Your task to perform on an android device: open app "Etsy: Buy & Sell Unique Items" (install if not already installed) and enter user name: "camp@inbox.com" and password: "unrelated" Image 0: 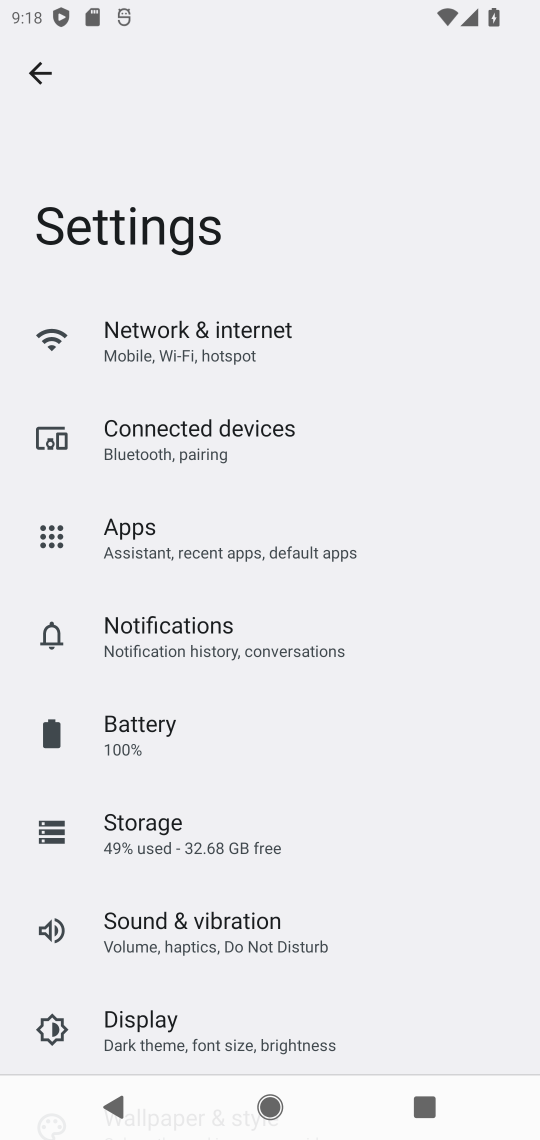
Step 0: press home button
Your task to perform on an android device: open app "Etsy: Buy & Sell Unique Items" (install if not already installed) and enter user name: "camp@inbox.com" and password: "unrelated" Image 1: 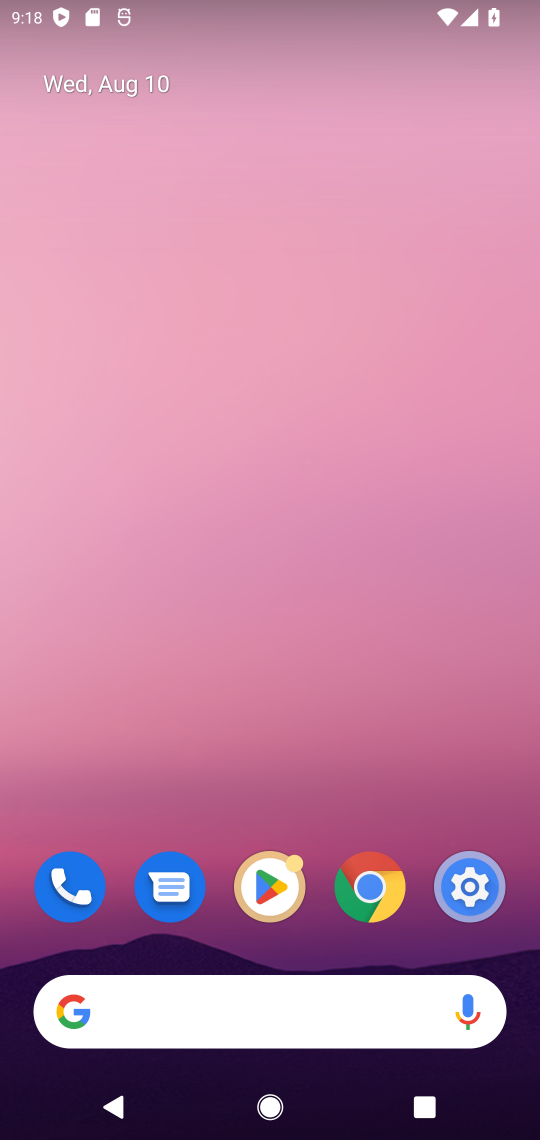
Step 1: click (263, 905)
Your task to perform on an android device: open app "Etsy: Buy & Sell Unique Items" (install if not already installed) and enter user name: "camp@inbox.com" and password: "unrelated" Image 2: 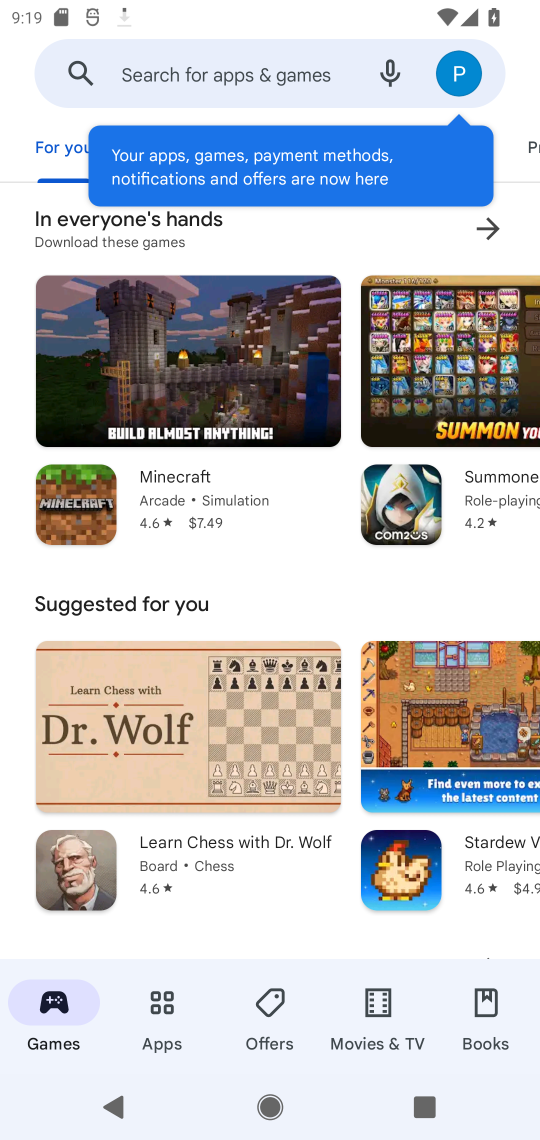
Step 2: type "Etsy: Buy & Sell Unique Items"
Your task to perform on an android device: open app "Etsy: Buy & Sell Unique Items" (install if not already installed) and enter user name: "camp@inbox.com" and password: "unrelated" Image 3: 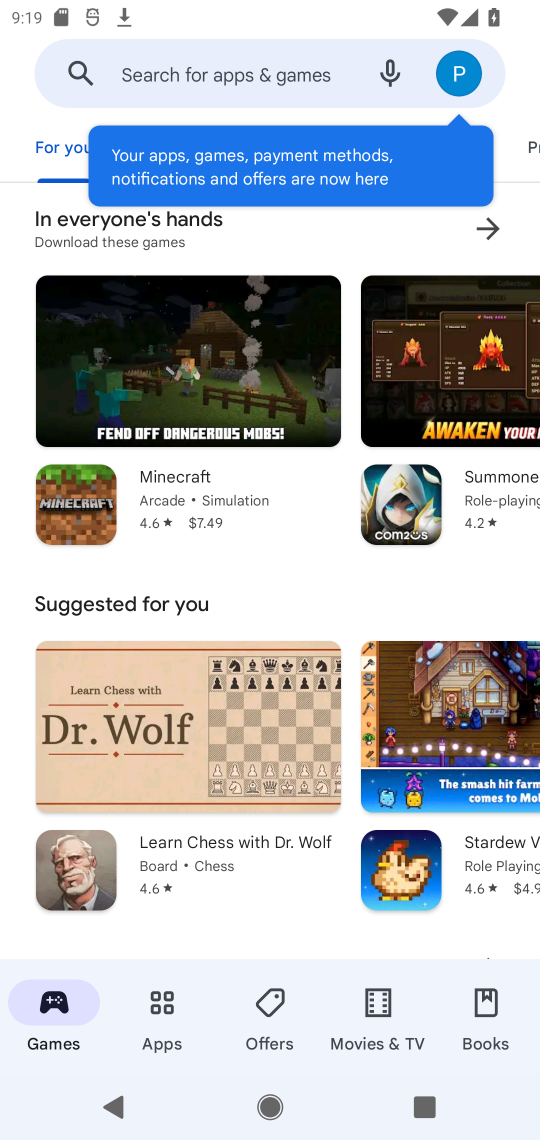
Step 3: click (174, 69)
Your task to perform on an android device: open app "Etsy: Buy & Sell Unique Items" (install if not already installed) and enter user name: "camp@inbox.com" and password: "unrelated" Image 4: 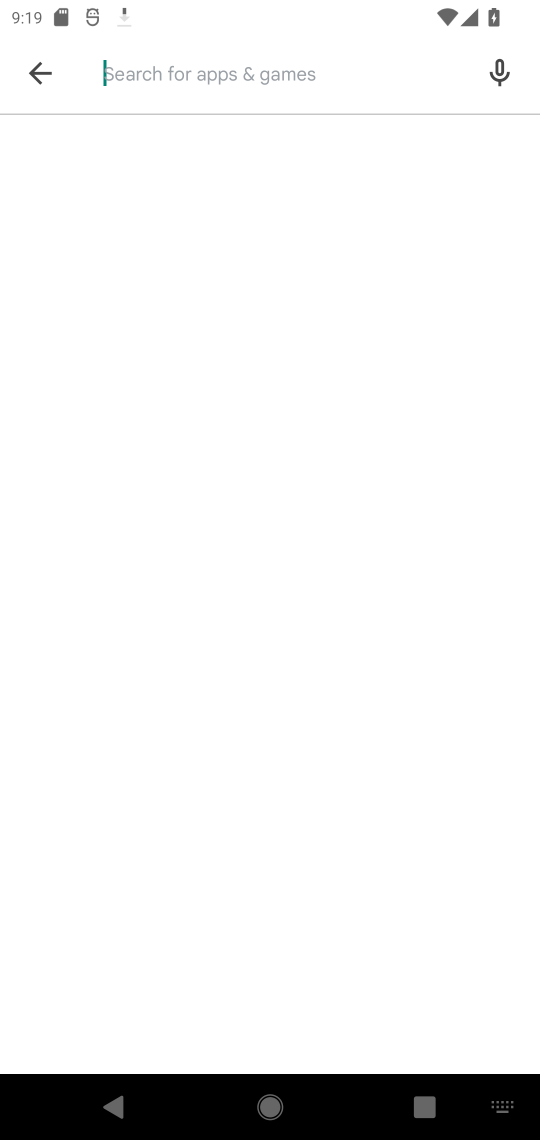
Step 4: type "Etsy: Buy & Sell Unique Items"
Your task to perform on an android device: open app "Etsy: Buy & Sell Unique Items" (install if not already installed) and enter user name: "camp@inbox.com" and password: "unrelated" Image 5: 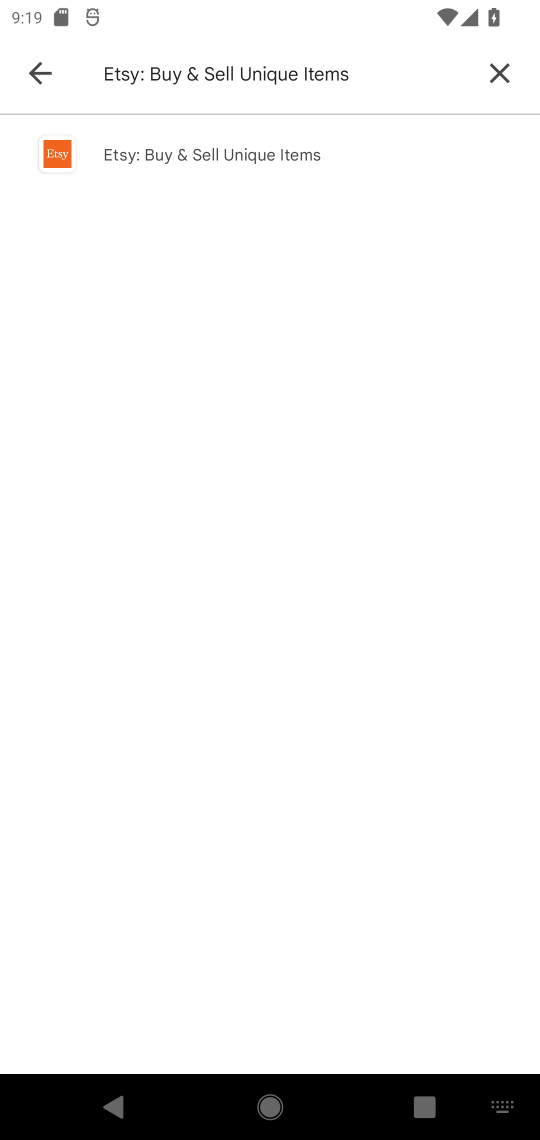
Step 5: click (266, 163)
Your task to perform on an android device: open app "Etsy: Buy & Sell Unique Items" (install if not already installed) and enter user name: "camp@inbox.com" and password: "unrelated" Image 6: 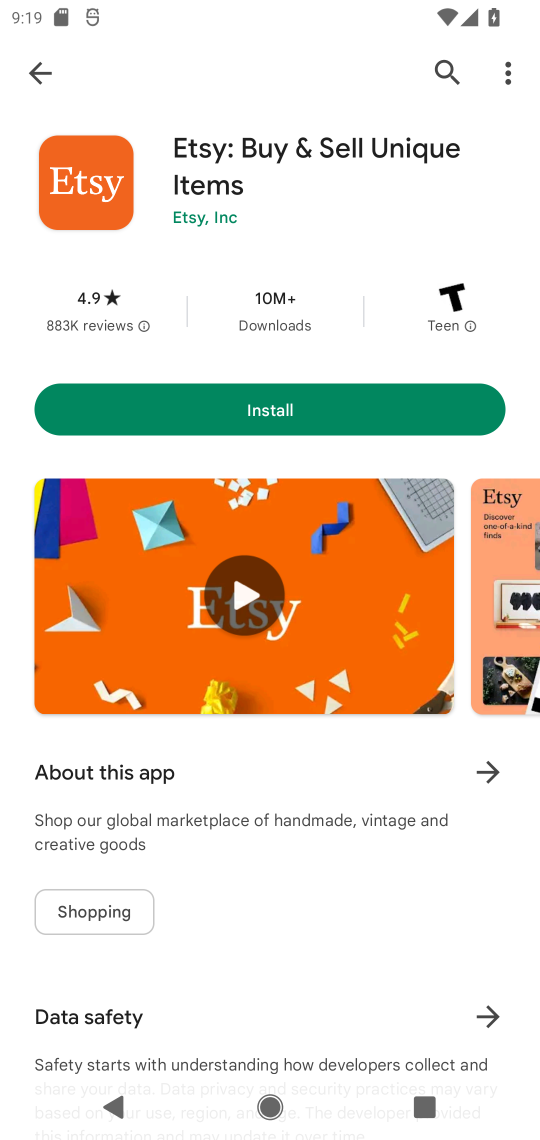
Step 6: click (318, 419)
Your task to perform on an android device: open app "Etsy: Buy & Sell Unique Items" (install if not already installed) and enter user name: "camp@inbox.com" and password: "unrelated" Image 7: 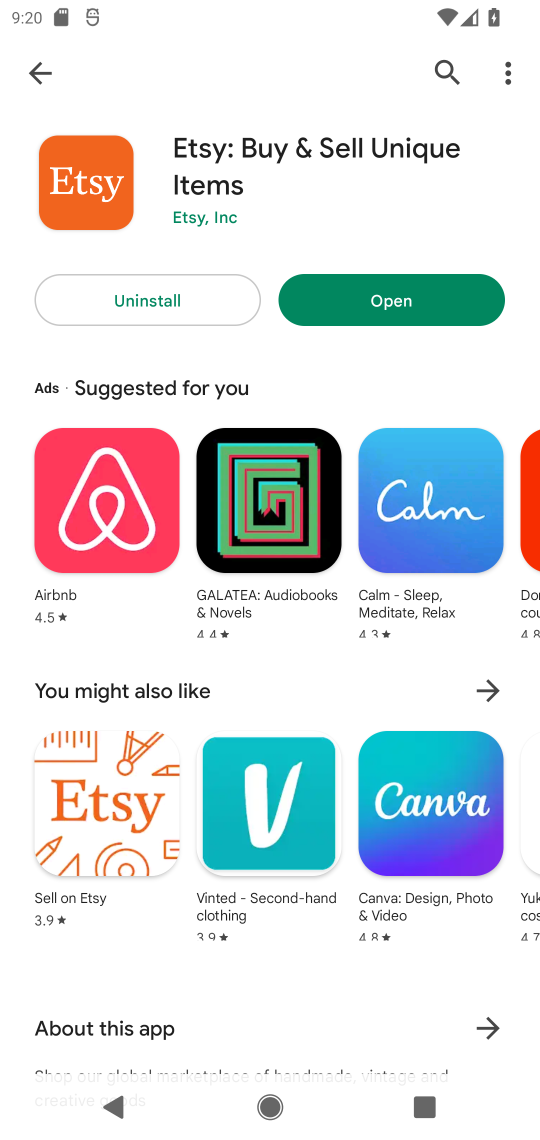
Step 7: click (351, 323)
Your task to perform on an android device: open app "Etsy: Buy & Sell Unique Items" (install if not already installed) and enter user name: "camp@inbox.com" and password: "unrelated" Image 8: 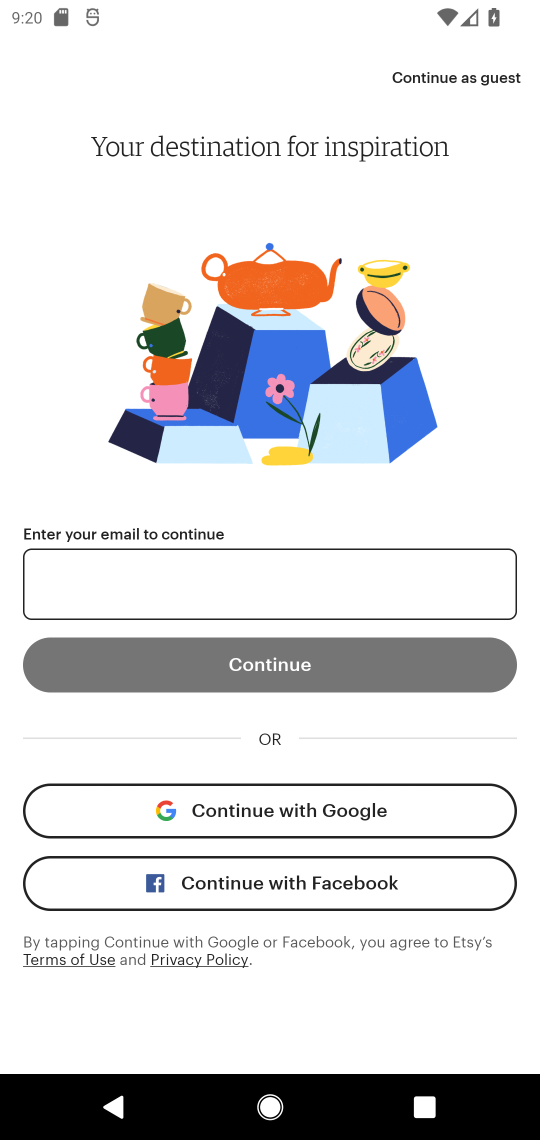
Step 8: type "camp@inbox.com"
Your task to perform on an android device: open app "Etsy: Buy & Sell Unique Items" (install if not already installed) and enter user name: "camp@inbox.com" and password: "unrelated" Image 9: 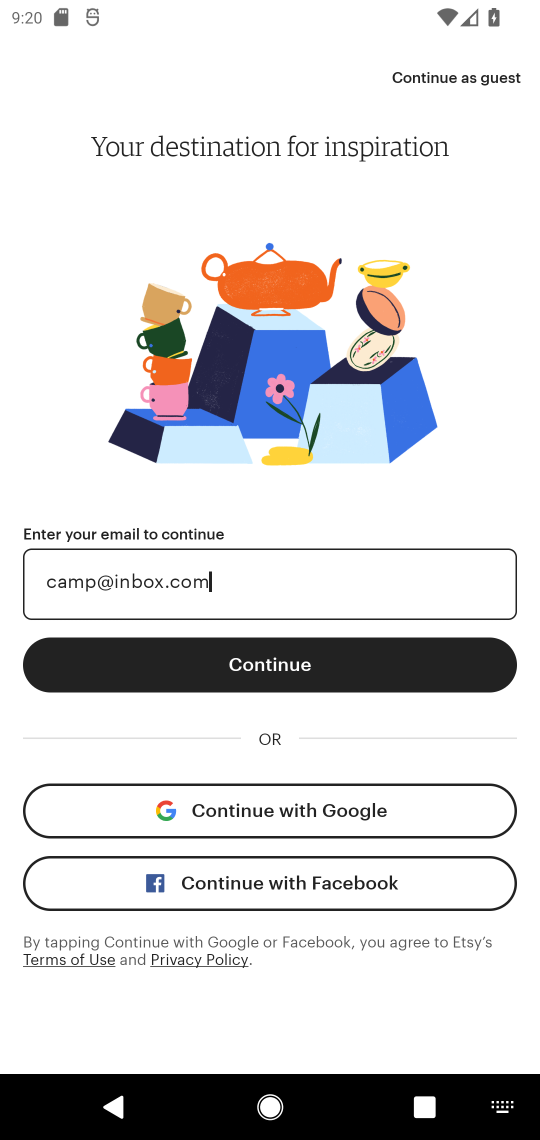
Step 9: click (361, 657)
Your task to perform on an android device: open app "Etsy: Buy & Sell Unique Items" (install if not already installed) and enter user name: "camp@inbox.com" and password: "unrelated" Image 10: 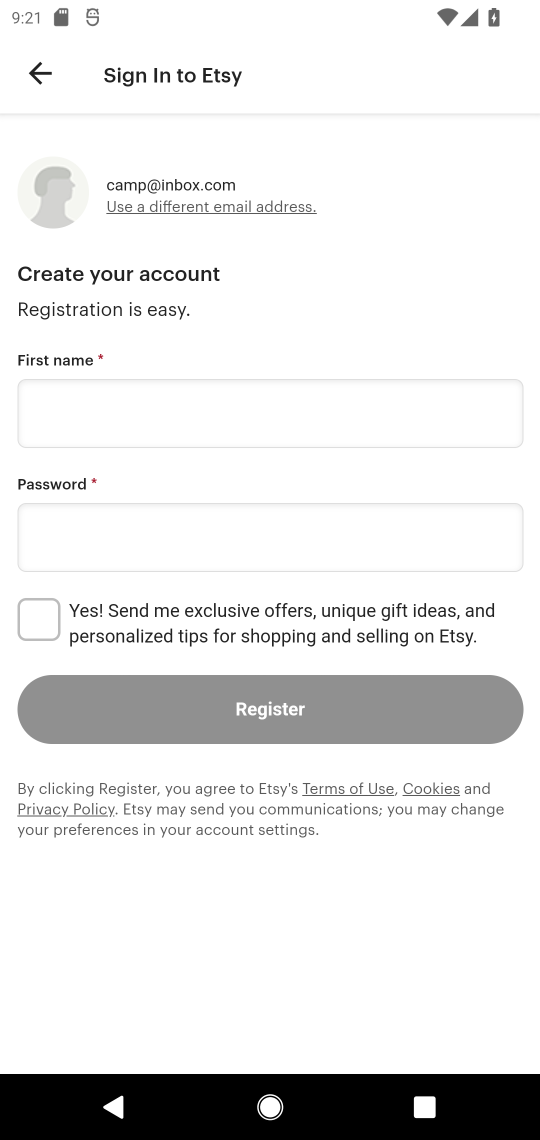
Step 10: task complete